Your task to perform on an android device: allow notifications from all sites in the chrome app Image 0: 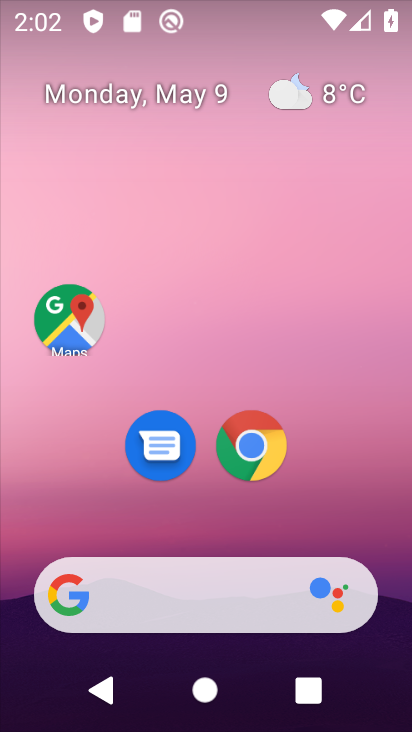
Step 0: drag from (367, 547) to (327, 47)
Your task to perform on an android device: allow notifications from all sites in the chrome app Image 1: 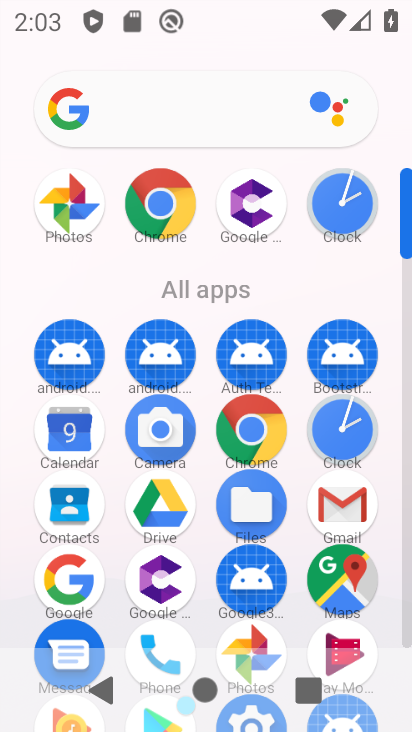
Step 1: click (165, 208)
Your task to perform on an android device: allow notifications from all sites in the chrome app Image 2: 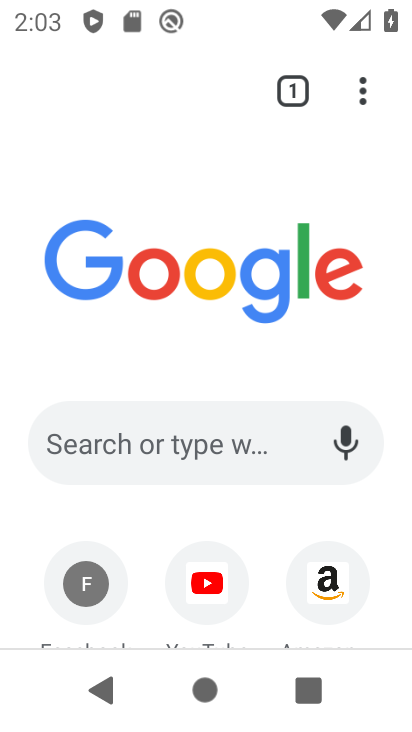
Step 2: click (361, 89)
Your task to perform on an android device: allow notifications from all sites in the chrome app Image 3: 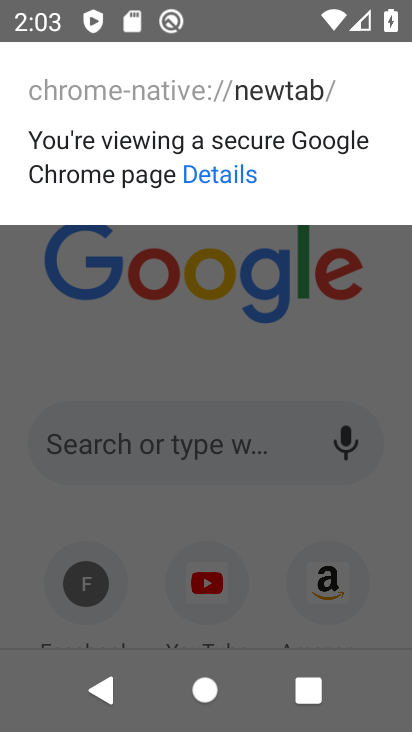
Step 3: click (333, 347)
Your task to perform on an android device: allow notifications from all sites in the chrome app Image 4: 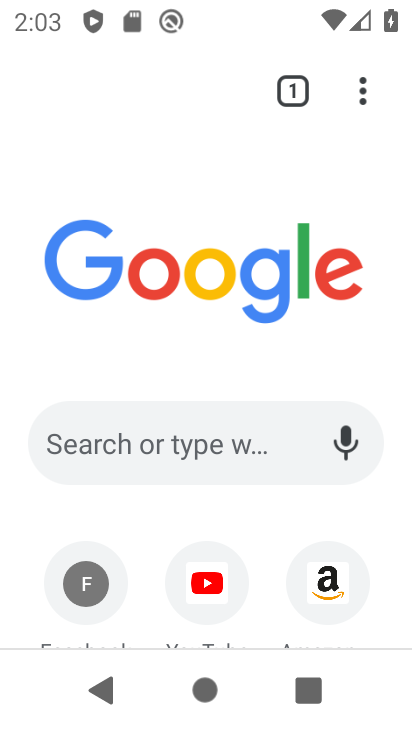
Step 4: drag from (366, 81) to (179, 480)
Your task to perform on an android device: allow notifications from all sites in the chrome app Image 5: 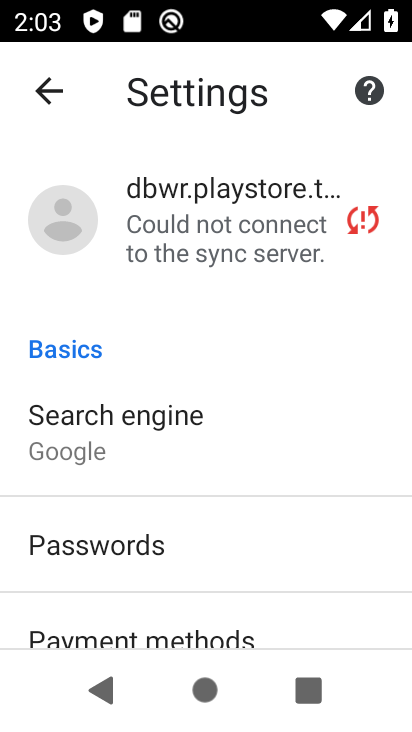
Step 5: drag from (239, 530) to (266, 212)
Your task to perform on an android device: allow notifications from all sites in the chrome app Image 6: 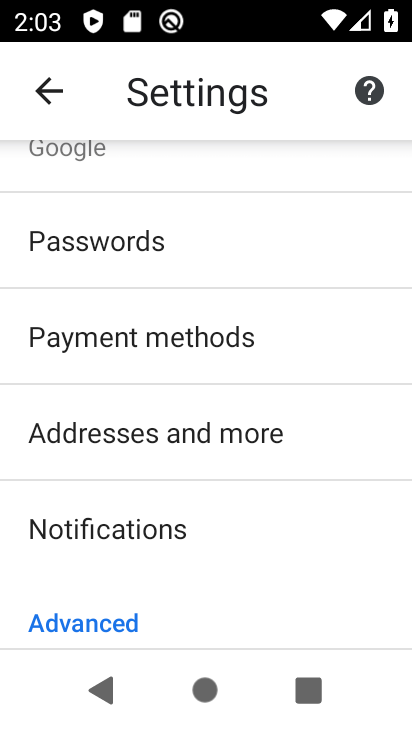
Step 6: drag from (214, 536) to (221, 251)
Your task to perform on an android device: allow notifications from all sites in the chrome app Image 7: 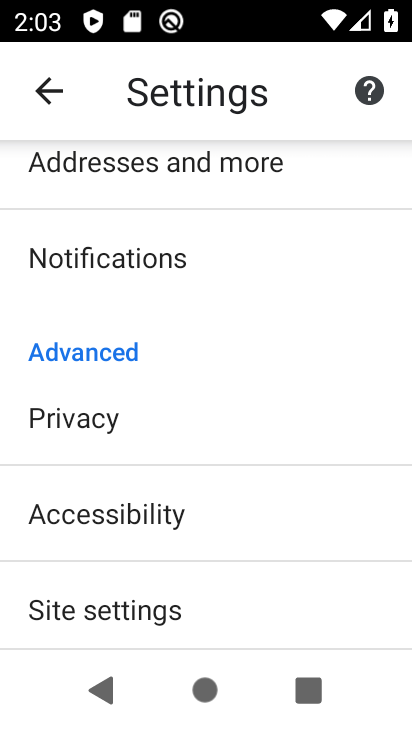
Step 7: drag from (189, 505) to (211, 285)
Your task to perform on an android device: allow notifications from all sites in the chrome app Image 8: 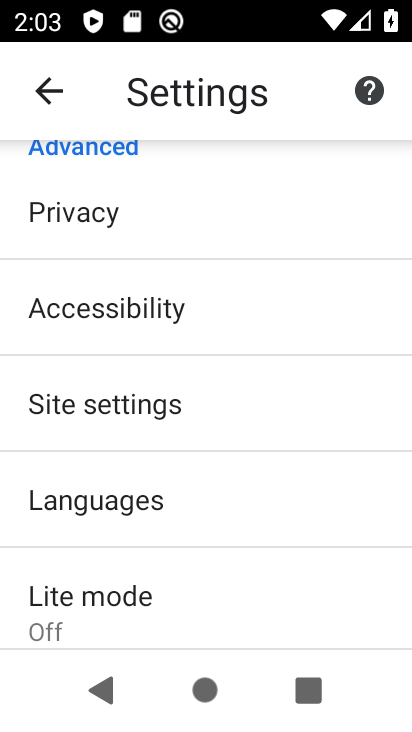
Step 8: click (211, 488)
Your task to perform on an android device: allow notifications from all sites in the chrome app Image 9: 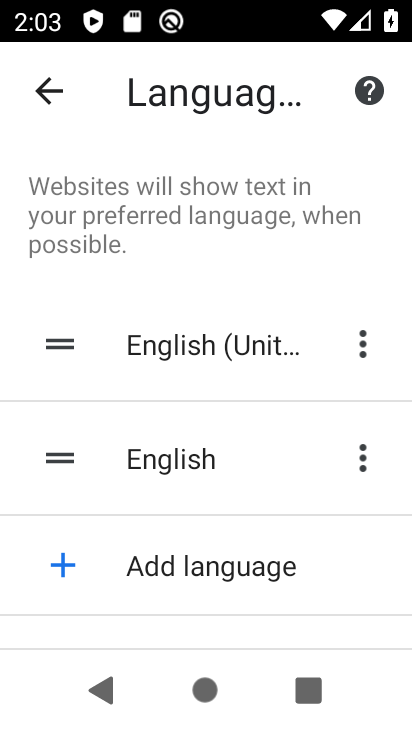
Step 9: drag from (181, 413) to (101, 130)
Your task to perform on an android device: allow notifications from all sites in the chrome app Image 10: 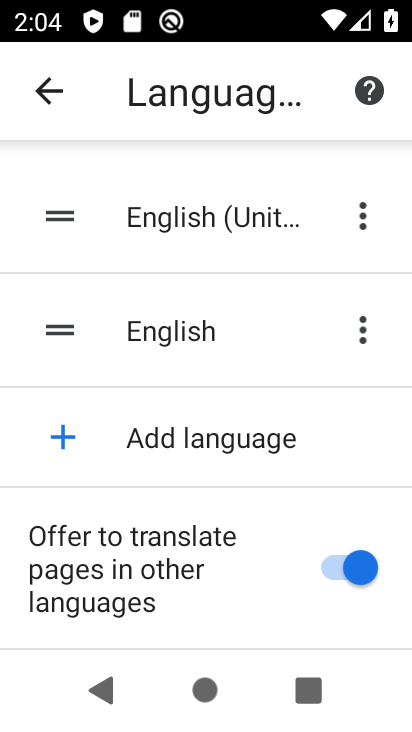
Step 10: click (78, 87)
Your task to perform on an android device: allow notifications from all sites in the chrome app Image 11: 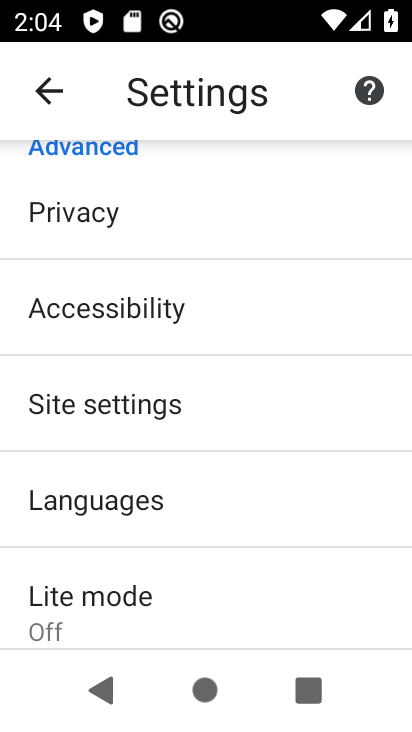
Step 11: click (144, 391)
Your task to perform on an android device: allow notifications from all sites in the chrome app Image 12: 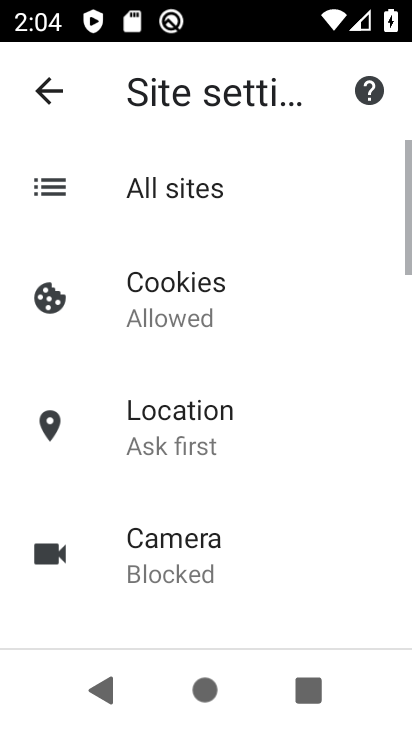
Step 12: click (191, 207)
Your task to perform on an android device: allow notifications from all sites in the chrome app Image 13: 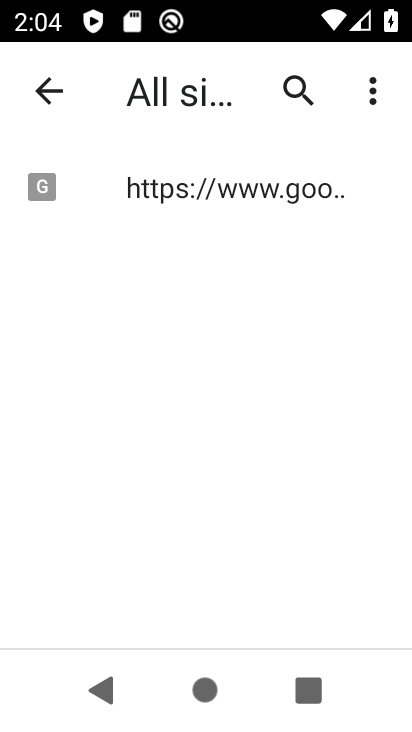
Step 13: click (195, 181)
Your task to perform on an android device: allow notifications from all sites in the chrome app Image 14: 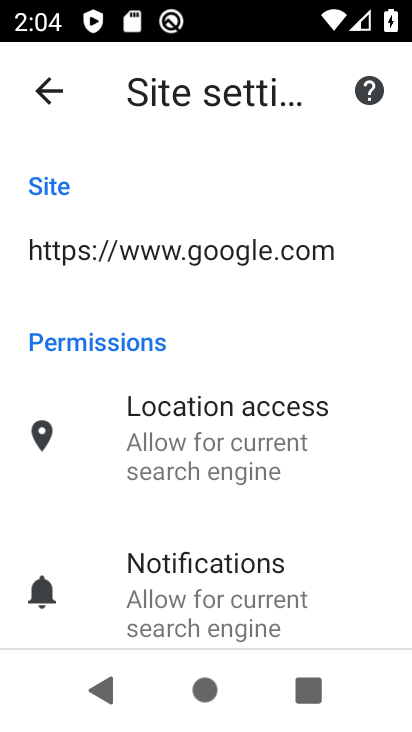
Step 14: click (98, 616)
Your task to perform on an android device: allow notifications from all sites in the chrome app Image 15: 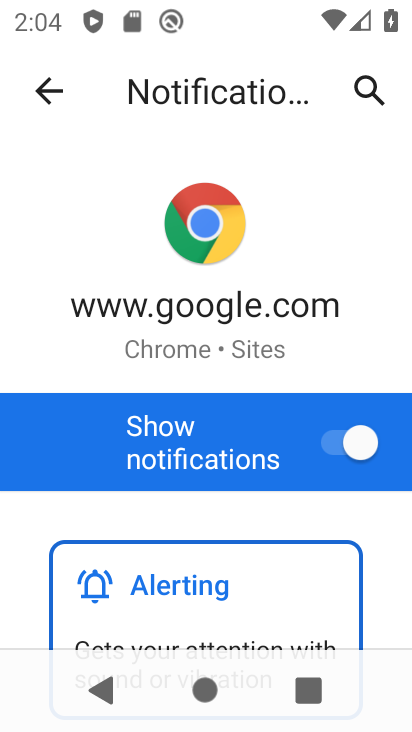
Step 15: click (33, 99)
Your task to perform on an android device: allow notifications from all sites in the chrome app Image 16: 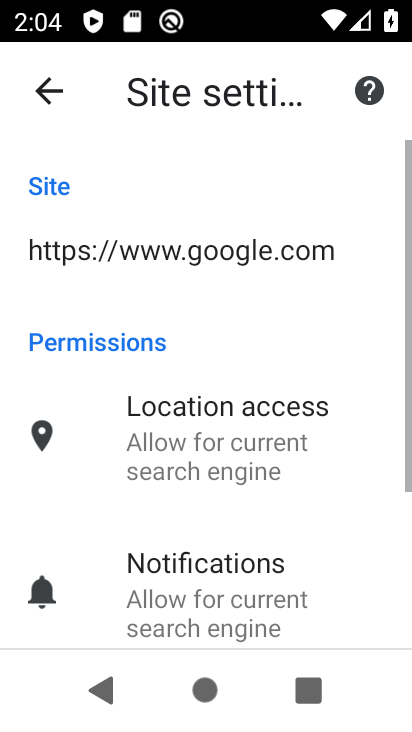
Step 16: click (135, 270)
Your task to perform on an android device: allow notifications from all sites in the chrome app Image 17: 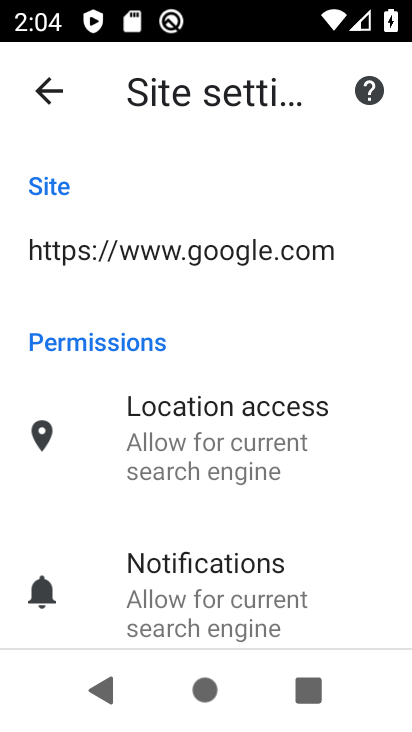
Step 17: click (135, 259)
Your task to perform on an android device: allow notifications from all sites in the chrome app Image 18: 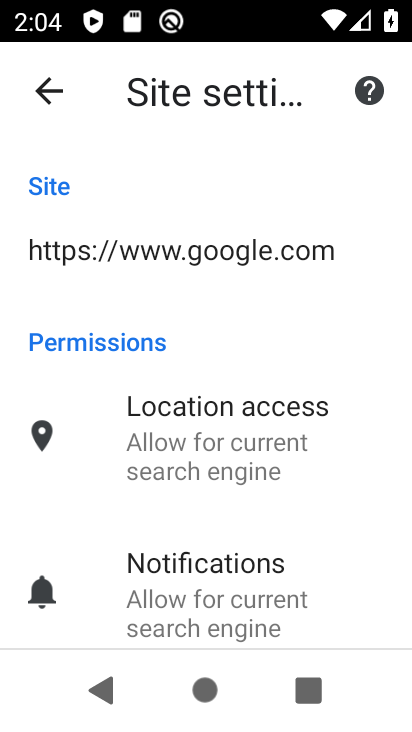
Step 18: click (188, 613)
Your task to perform on an android device: allow notifications from all sites in the chrome app Image 19: 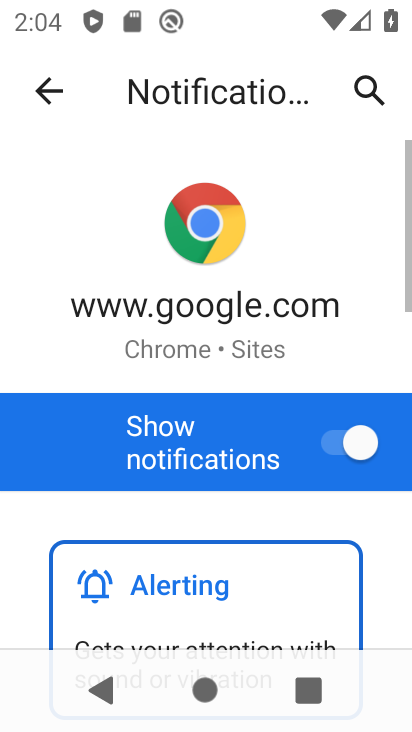
Step 19: task complete